Your task to perform on an android device: Is it going to rain today? Image 0: 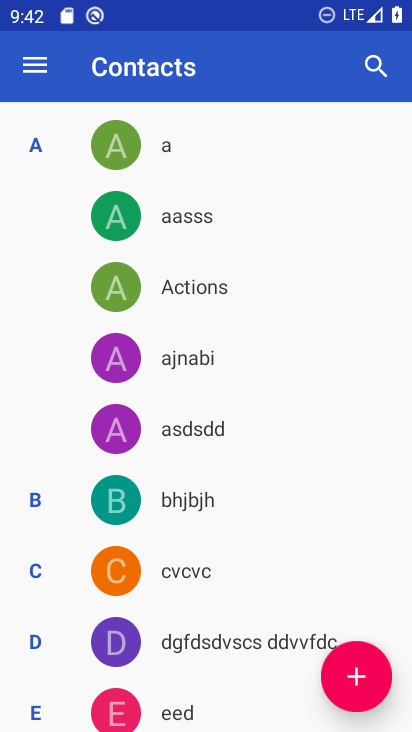
Step 0: press home button
Your task to perform on an android device: Is it going to rain today? Image 1: 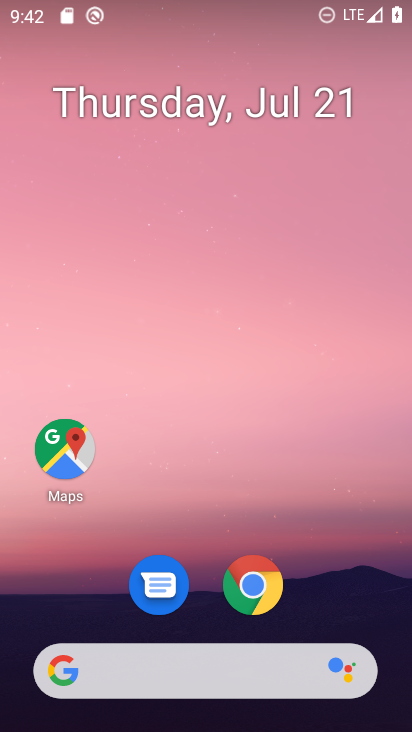
Step 1: click (207, 676)
Your task to perform on an android device: Is it going to rain today? Image 2: 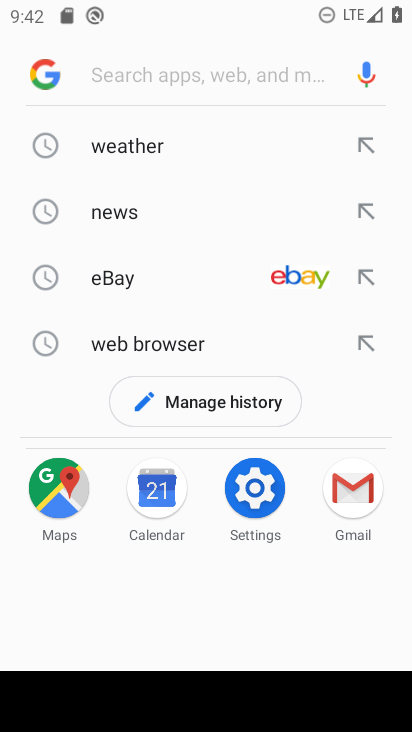
Step 2: click (155, 143)
Your task to perform on an android device: Is it going to rain today? Image 3: 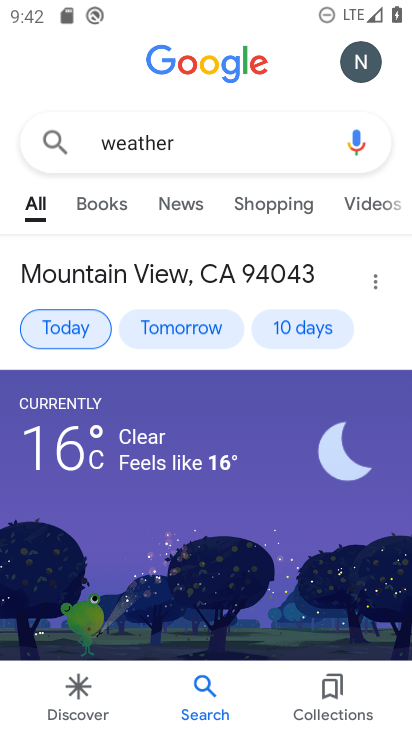
Step 3: click (94, 329)
Your task to perform on an android device: Is it going to rain today? Image 4: 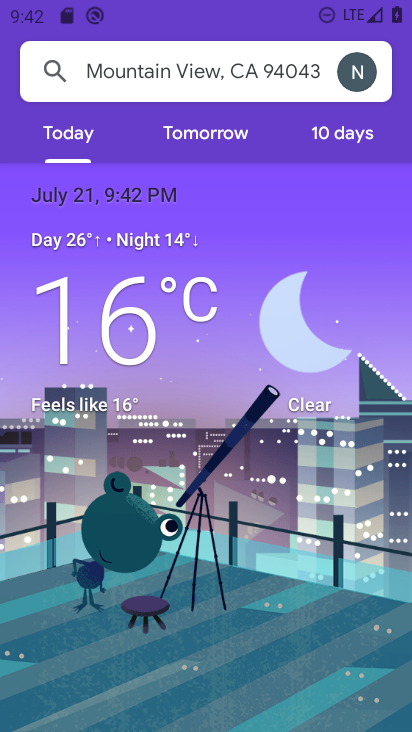
Step 4: task complete